Your task to perform on an android device: read, delete, or share a saved page in the chrome app Image 0: 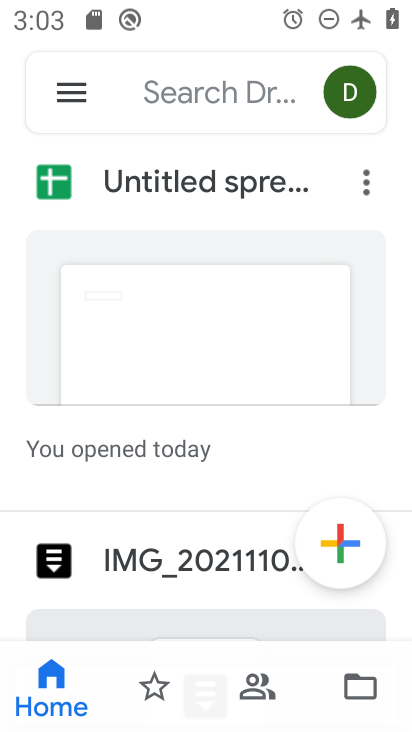
Step 0: press home button
Your task to perform on an android device: read, delete, or share a saved page in the chrome app Image 1: 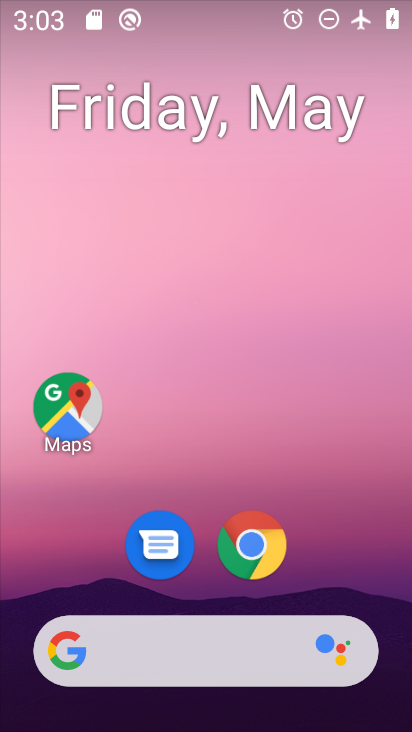
Step 1: drag from (336, 584) to (329, 239)
Your task to perform on an android device: read, delete, or share a saved page in the chrome app Image 2: 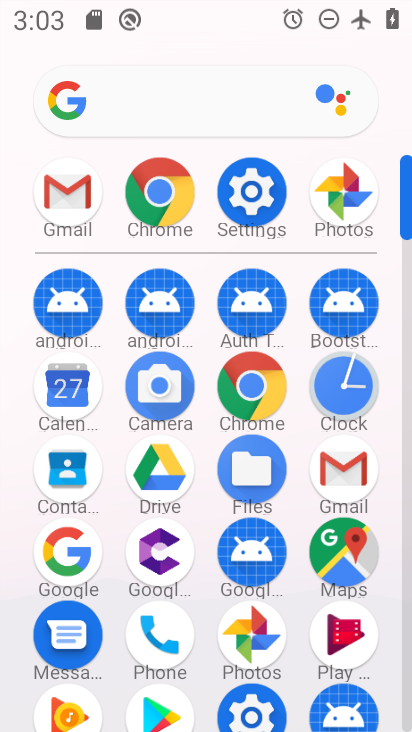
Step 2: click (261, 386)
Your task to perform on an android device: read, delete, or share a saved page in the chrome app Image 3: 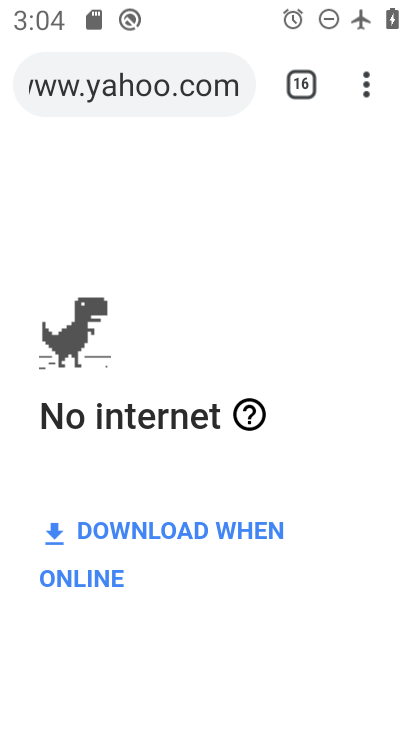
Step 3: click (379, 77)
Your task to perform on an android device: read, delete, or share a saved page in the chrome app Image 4: 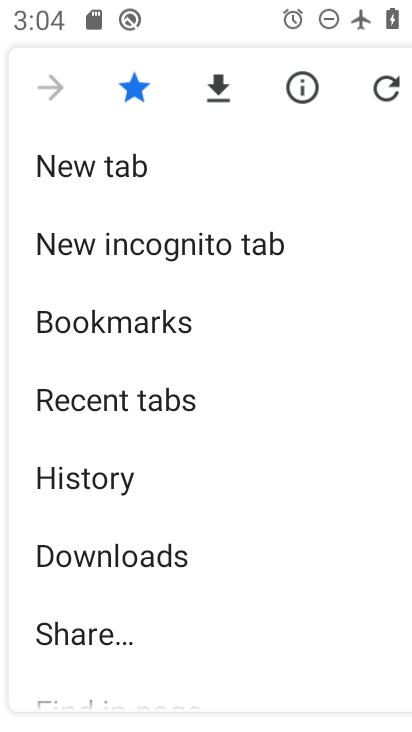
Step 4: click (150, 565)
Your task to perform on an android device: read, delete, or share a saved page in the chrome app Image 5: 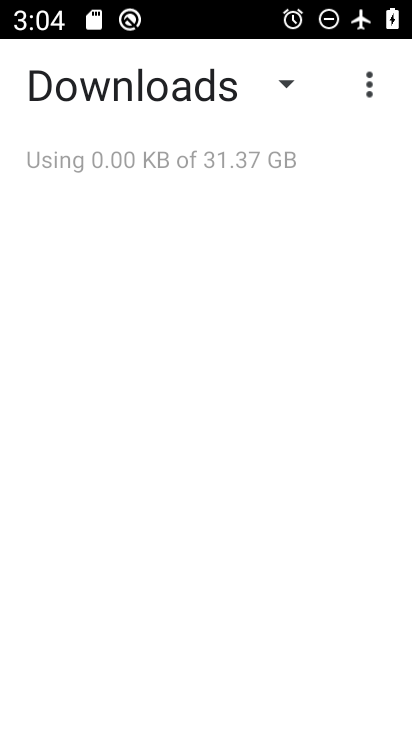
Step 5: click (286, 81)
Your task to perform on an android device: read, delete, or share a saved page in the chrome app Image 6: 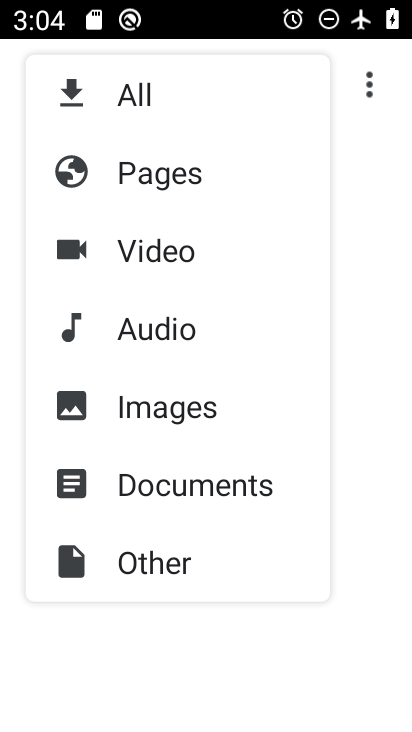
Step 6: click (178, 170)
Your task to perform on an android device: read, delete, or share a saved page in the chrome app Image 7: 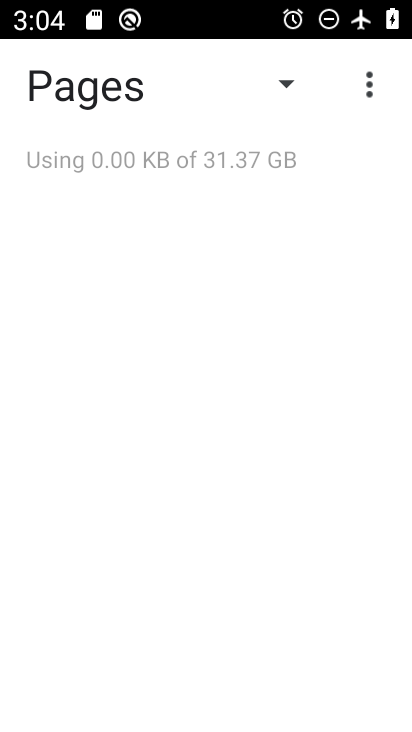
Step 7: task complete